Your task to perform on an android device: toggle airplane mode Image 0: 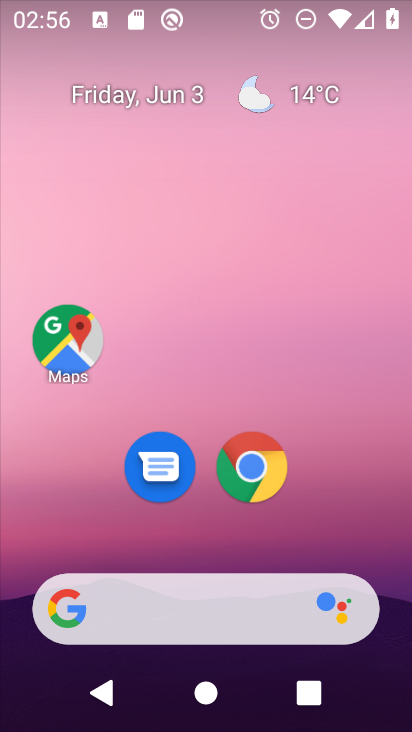
Step 0: drag from (399, 600) to (348, 139)
Your task to perform on an android device: toggle airplane mode Image 1: 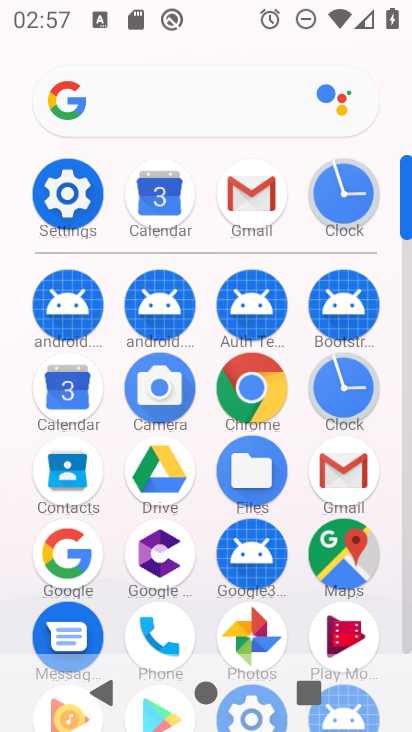
Step 1: click (405, 630)
Your task to perform on an android device: toggle airplane mode Image 2: 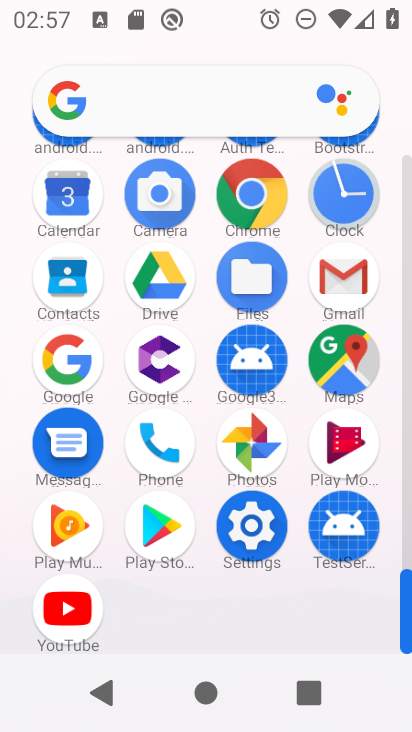
Step 2: click (256, 523)
Your task to perform on an android device: toggle airplane mode Image 3: 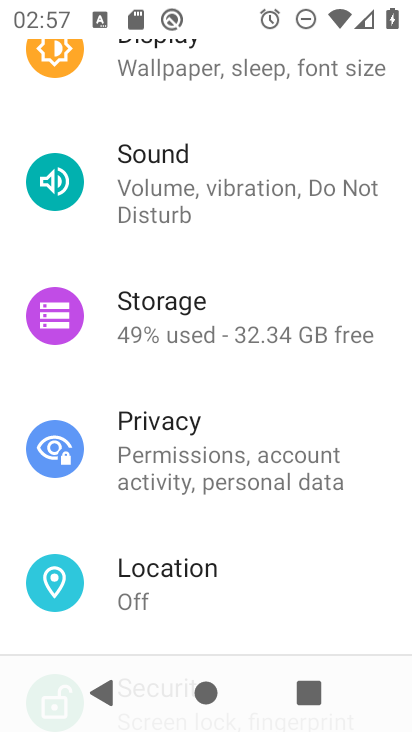
Step 3: drag from (285, 173) to (289, 428)
Your task to perform on an android device: toggle airplane mode Image 4: 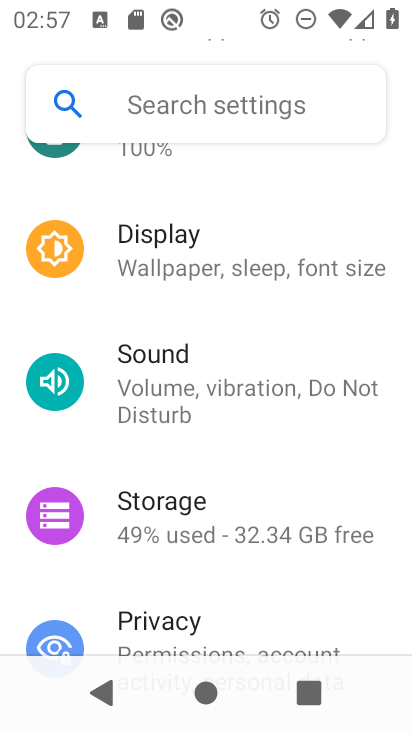
Step 4: drag from (328, 202) to (315, 464)
Your task to perform on an android device: toggle airplane mode Image 5: 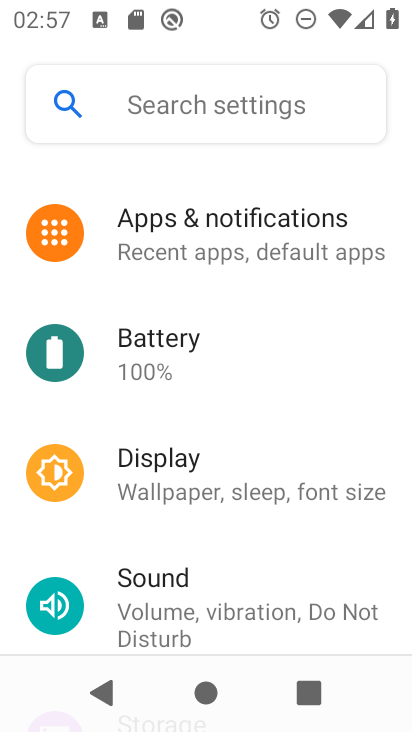
Step 5: drag from (323, 277) to (282, 601)
Your task to perform on an android device: toggle airplane mode Image 6: 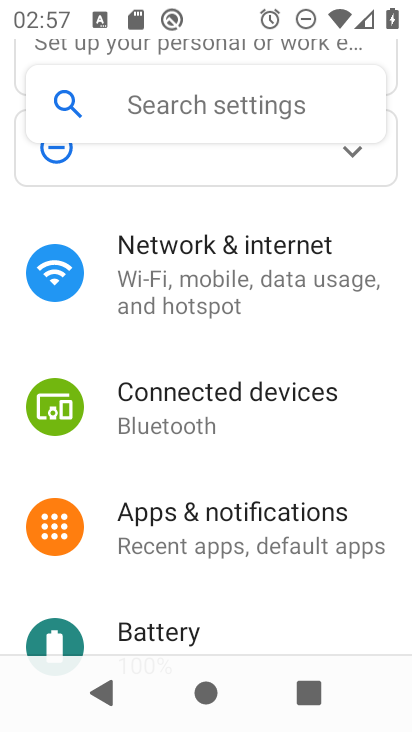
Step 6: click (191, 268)
Your task to perform on an android device: toggle airplane mode Image 7: 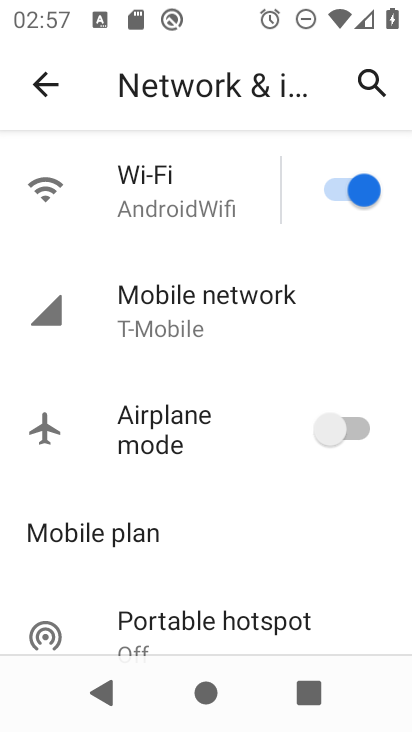
Step 7: click (351, 427)
Your task to perform on an android device: toggle airplane mode Image 8: 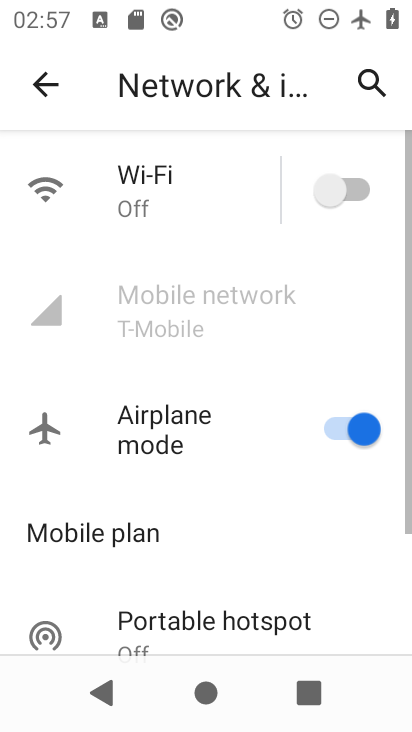
Step 8: task complete